Your task to perform on an android device: What is the news today? Image 0: 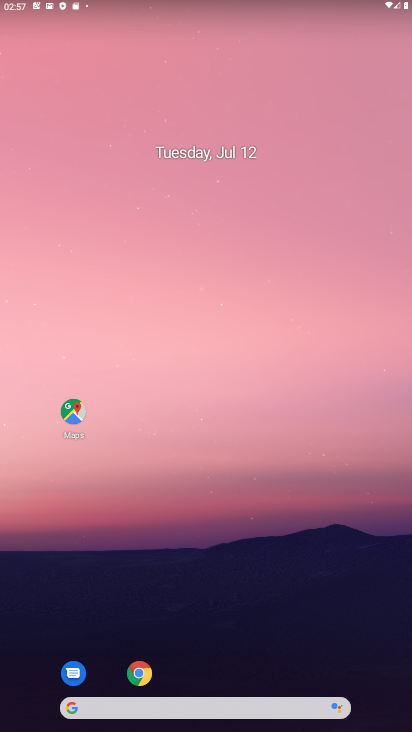
Step 0: click (240, 705)
Your task to perform on an android device: What is the news today? Image 1: 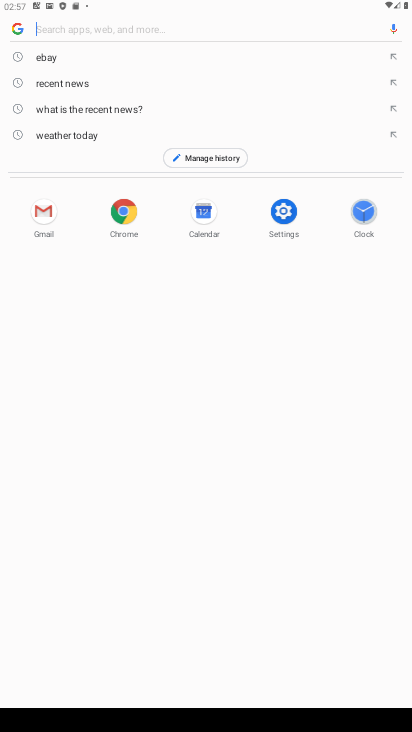
Step 1: type "What is the news today?"
Your task to perform on an android device: What is the news today? Image 2: 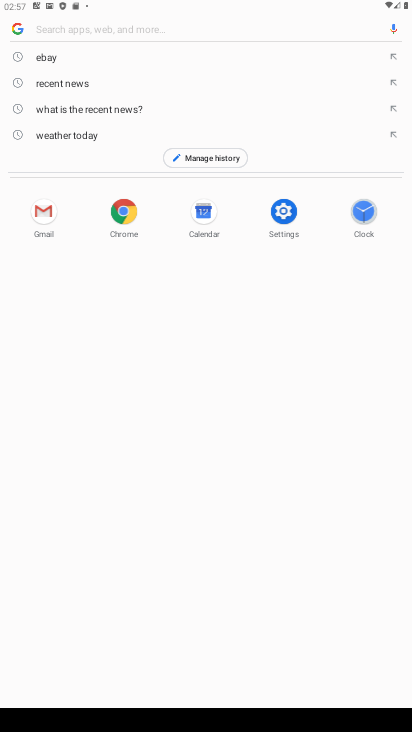
Step 2: click (50, 17)
Your task to perform on an android device: What is the news today? Image 3: 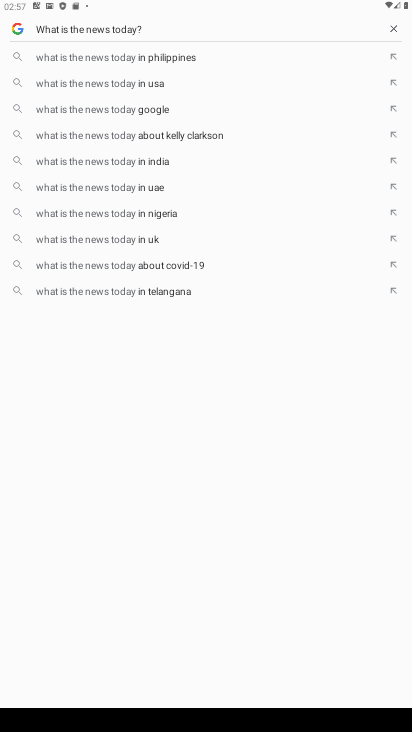
Step 3: press enter
Your task to perform on an android device: What is the news today? Image 4: 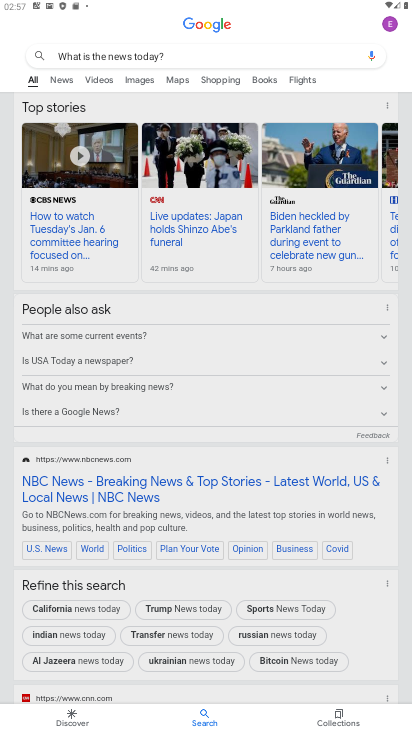
Step 4: task complete